Your task to perform on an android device: toggle location history Image 0: 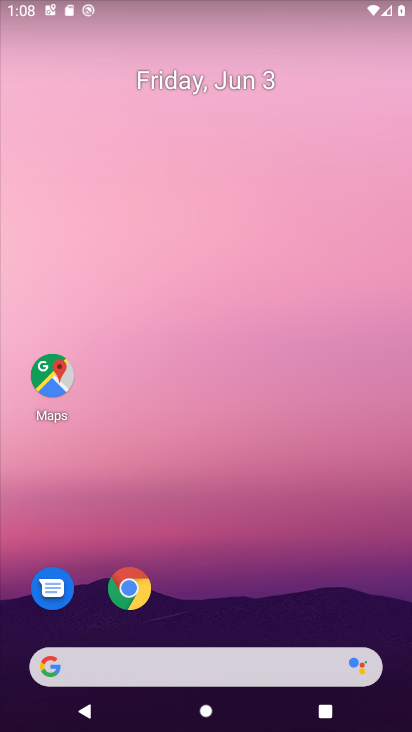
Step 0: drag from (257, 522) to (281, 337)
Your task to perform on an android device: toggle location history Image 1: 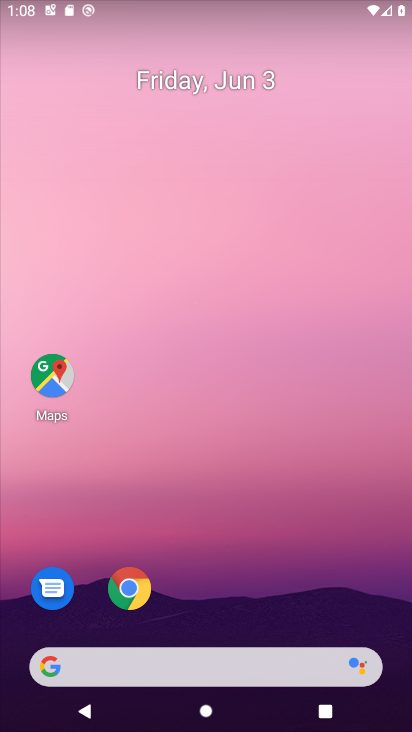
Step 1: drag from (226, 562) to (211, 264)
Your task to perform on an android device: toggle location history Image 2: 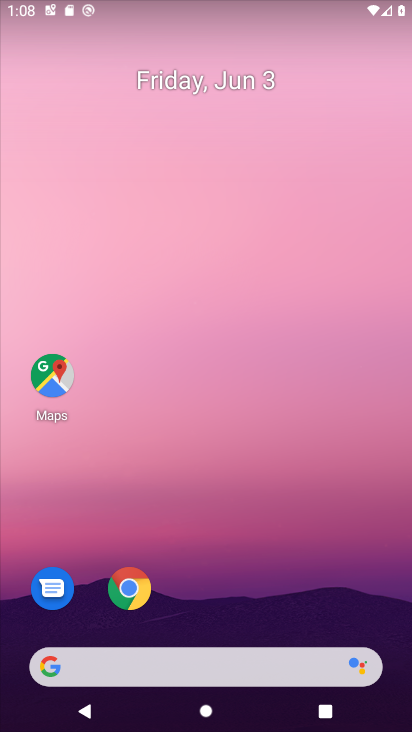
Step 2: drag from (248, 542) to (248, 413)
Your task to perform on an android device: toggle location history Image 3: 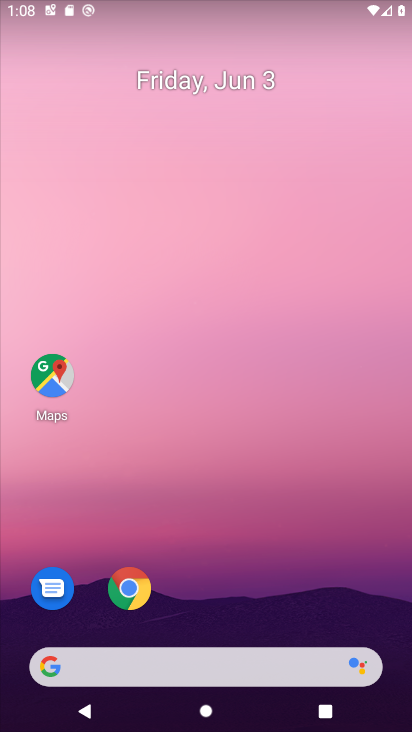
Step 3: drag from (235, 638) to (237, 134)
Your task to perform on an android device: toggle location history Image 4: 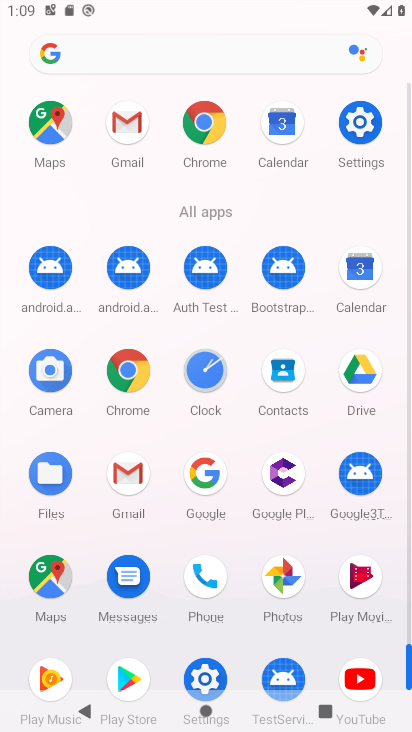
Step 4: click (377, 127)
Your task to perform on an android device: toggle location history Image 5: 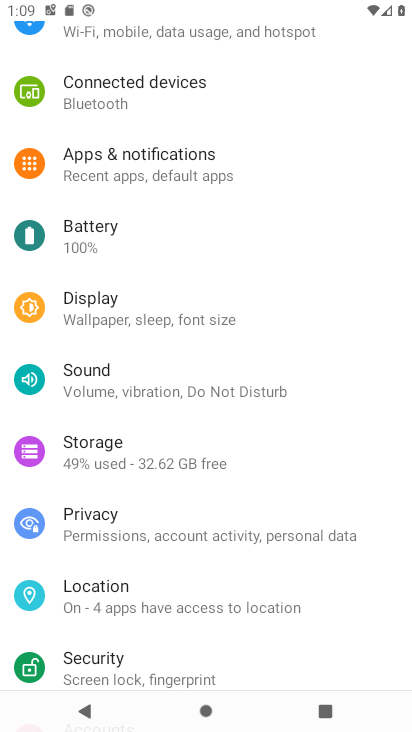
Step 5: click (220, 603)
Your task to perform on an android device: toggle location history Image 6: 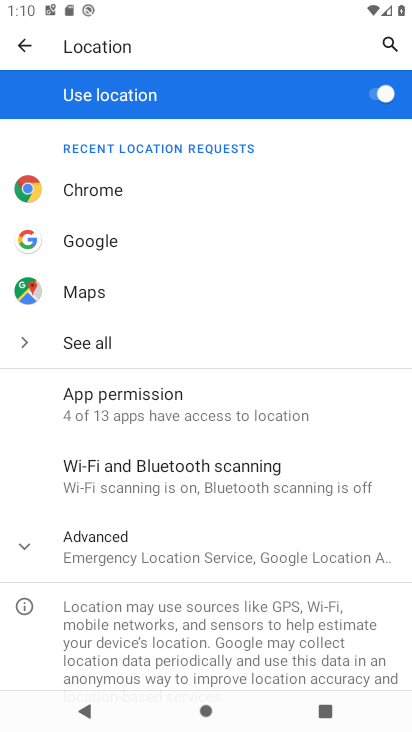
Step 6: click (277, 552)
Your task to perform on an android device: toggle location history Image 7: 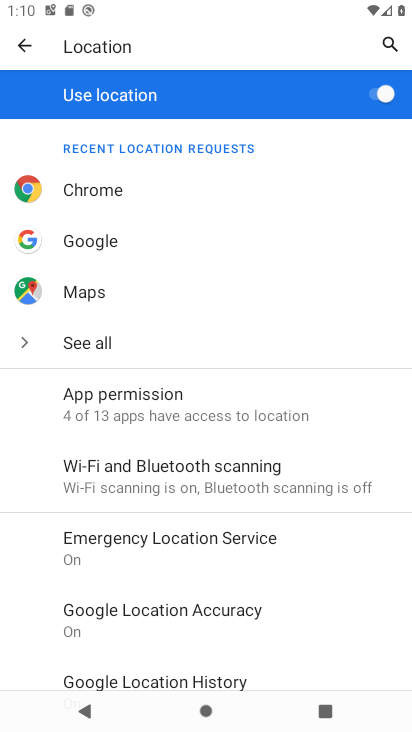
Step 7: drag from (272, 585) to (282, 407)
Your task to perform on an android device: toggle location history Image 8: 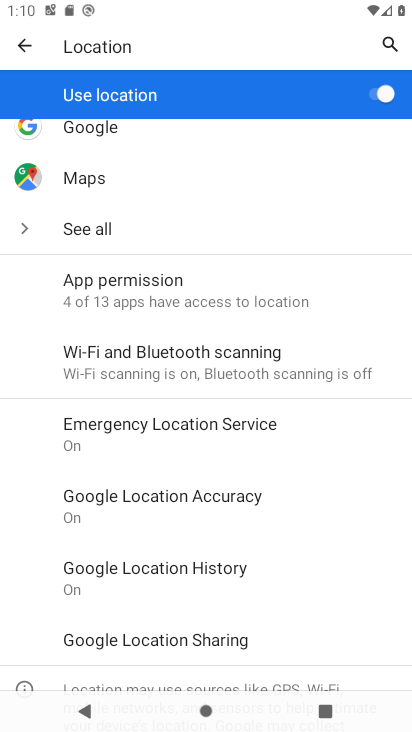
Step 8: click (257, 573)
Your task to perform on an android device: toggle location history Image 9: 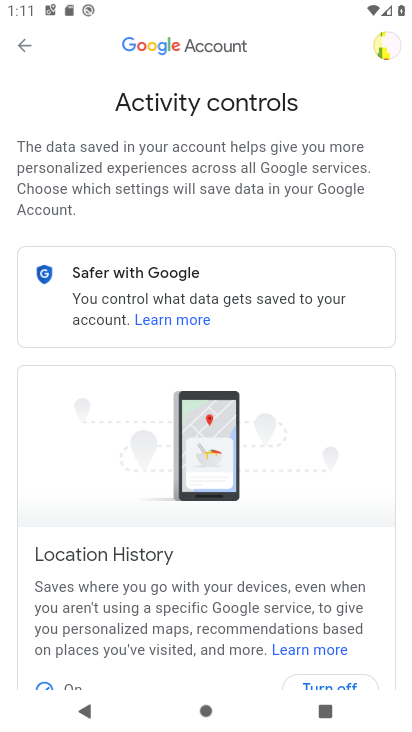
Step 9: drag from (260, 519) to (257, 374)
Your task to perform on an android device: toggle location history Image 10: 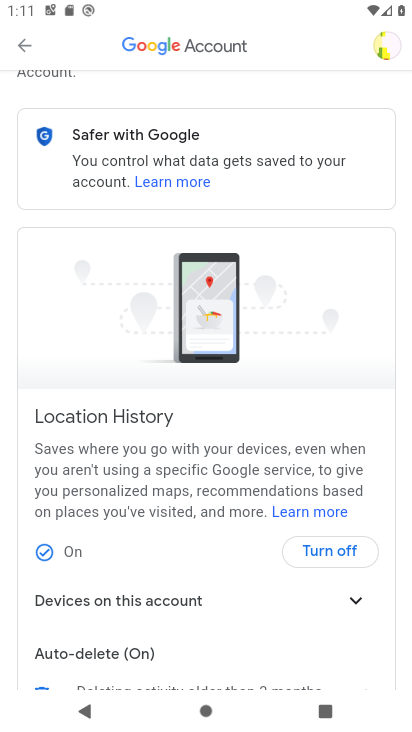
Step 10: click (346, 558)
Your task to perform on an android device: toggle location history Image 11: 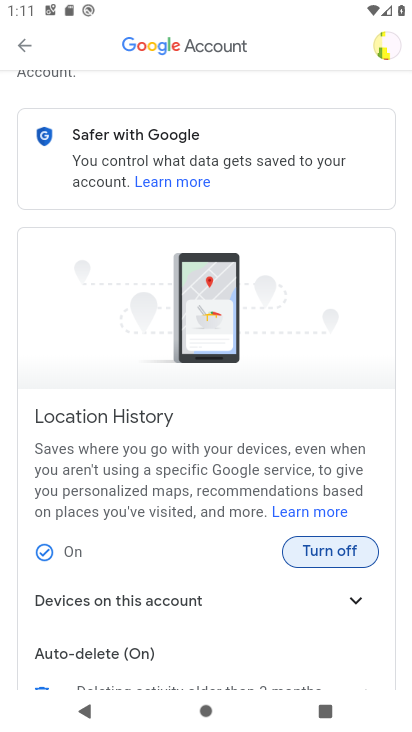
Step 11: click (331, 554)
Your task to perform on an android device: toggle location history Image 12: 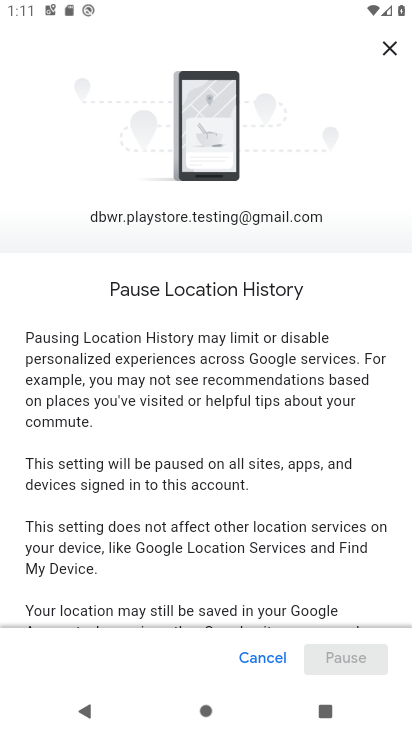
Step 12: drag from (291, 488) to (366, 73)
Your task to perform on an android device: toggle location history Image 13: 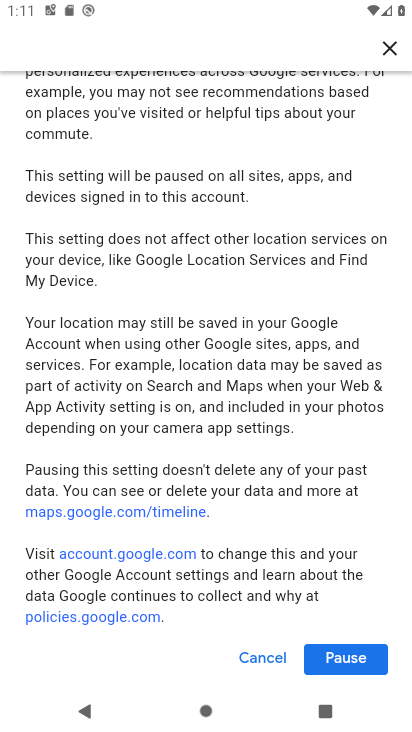
Step 13: click (353, 659)
Your task to perform on an android device: toggle location history Image 14: 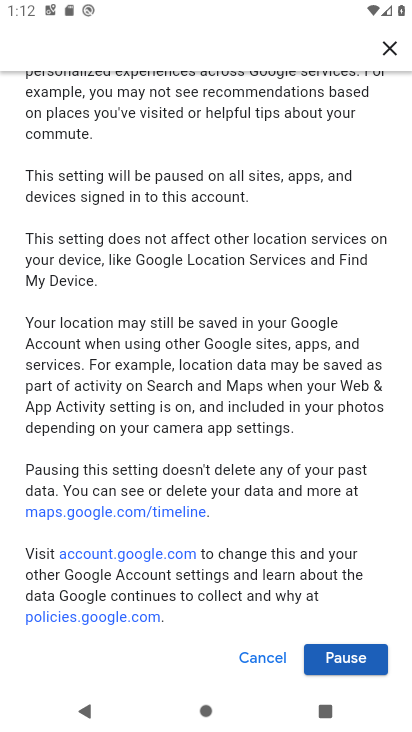
Step 14: click (339, 656)
Your task to perform on an android device: toggle location history Image 15: 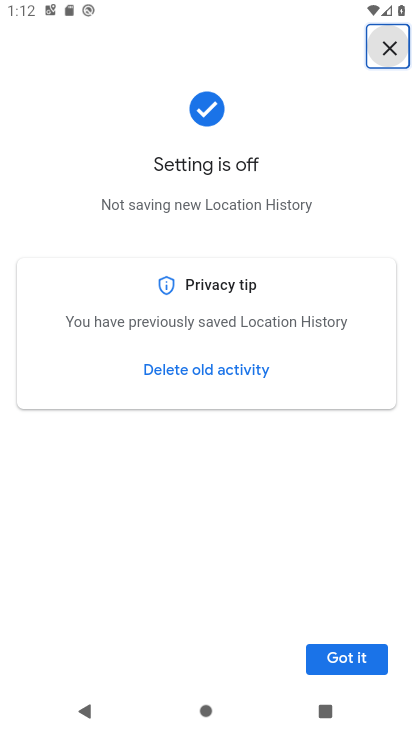
Step 15: click (370, 655)
Your task to perform on an android device: toggle location history Image 16: 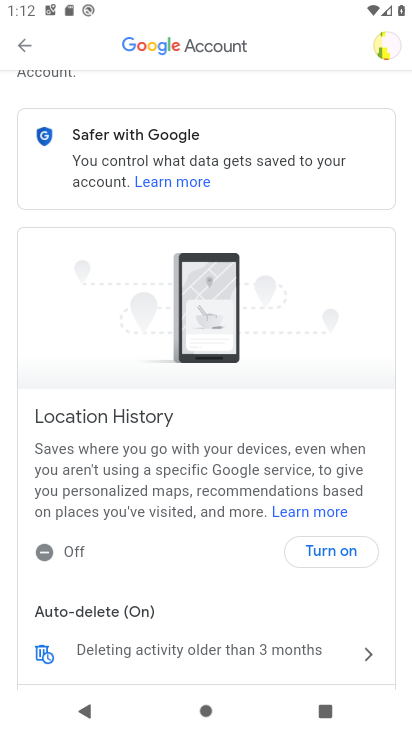
Step 16: task complete